Your task to perform on an android device: Go to network settings Image 0: 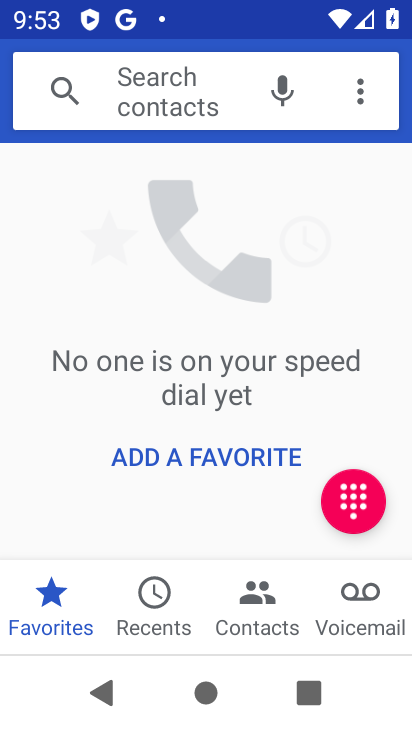
Step 0: press home button
Your task to perform on an android device: Go to network settings Image 1: 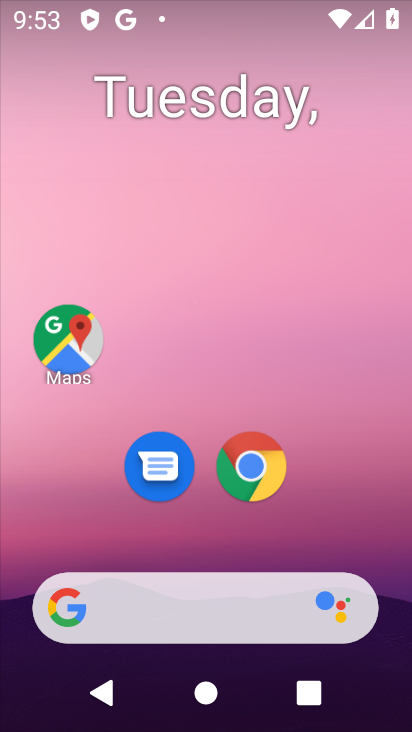
Step 1: drag from (340, 446) to (318, 20)
Your task to perform on an android device: Go to network settings Image 2: 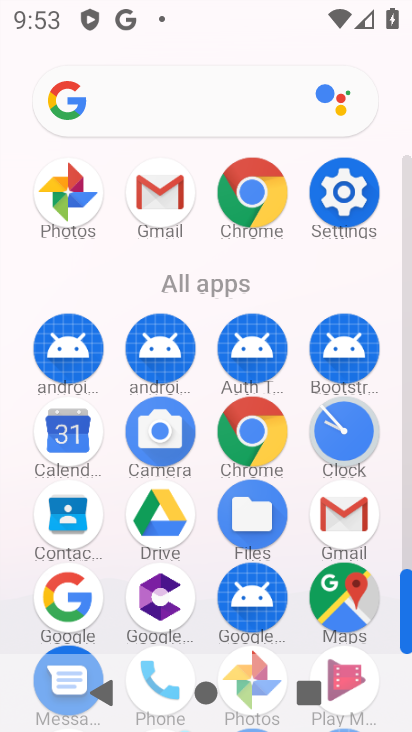
Step 2: click (340, 193)
Your task to perform on an android device: Go to network settings Image 3: 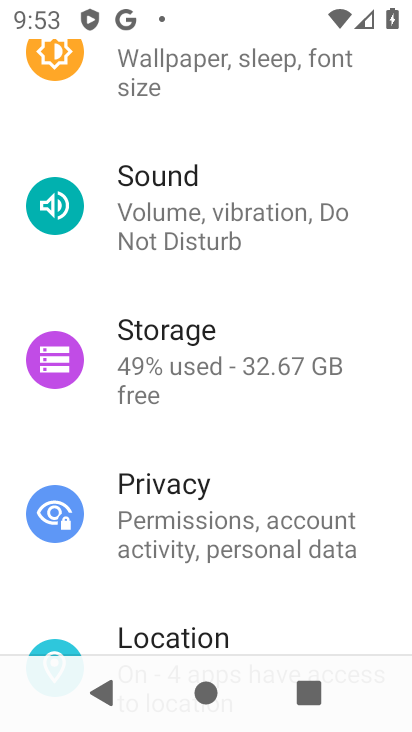
Step 3: drag from (273, 130) to (334, 648)
Your task to perform on an android device: Go to network settings Image 4: 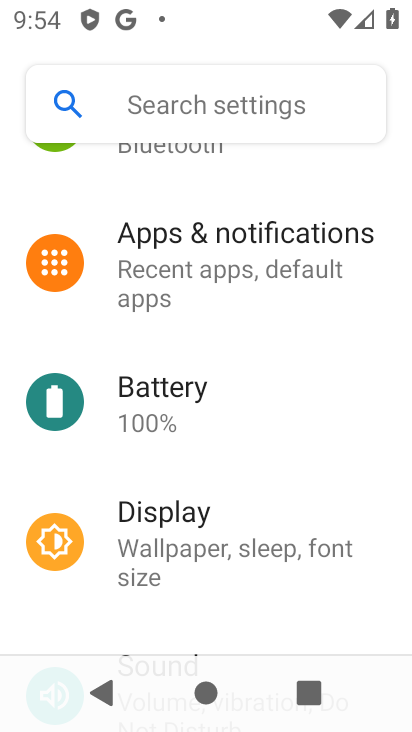
Step 4: drag from (255, 218) to (250, 565)
Your task to perform on an android device: Go to network settings Image 5: 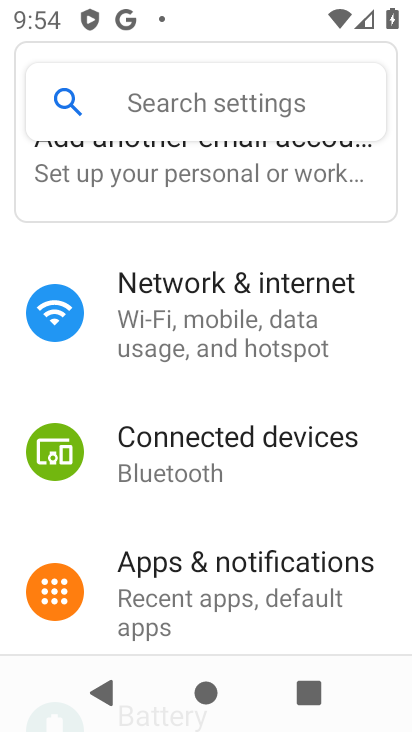
Step 5: click (216, 334)
Your task to perform on an android device: Go to network settings Image 6: 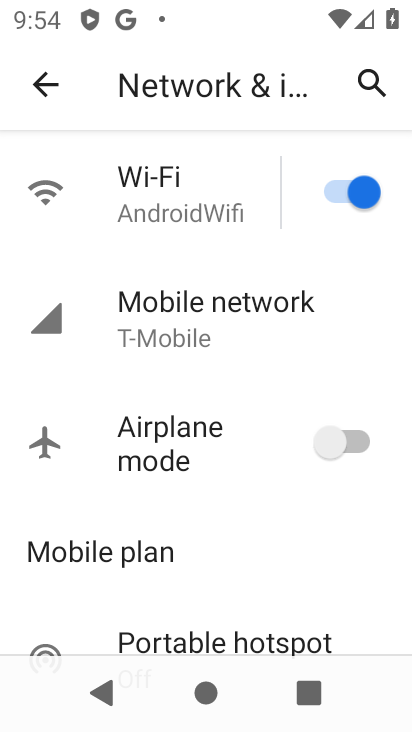
Step 6: drag from (180, 540) to (244, 71)
Your task to perform on an android device: Go to network settings Image 7: 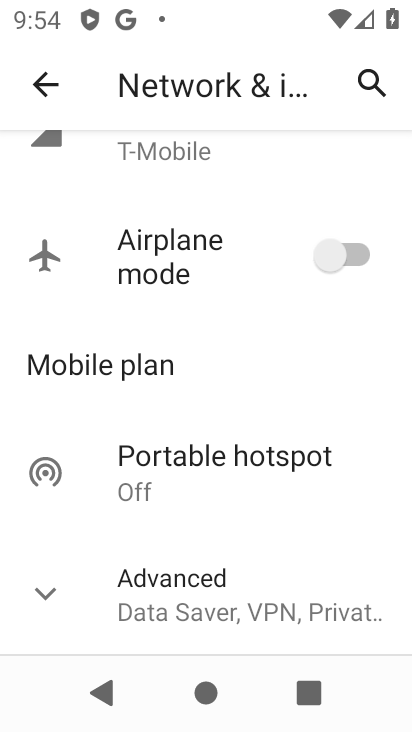
Step 7: click (190, 597)
Your task to perform on an android device: Go to network settings Image 8: 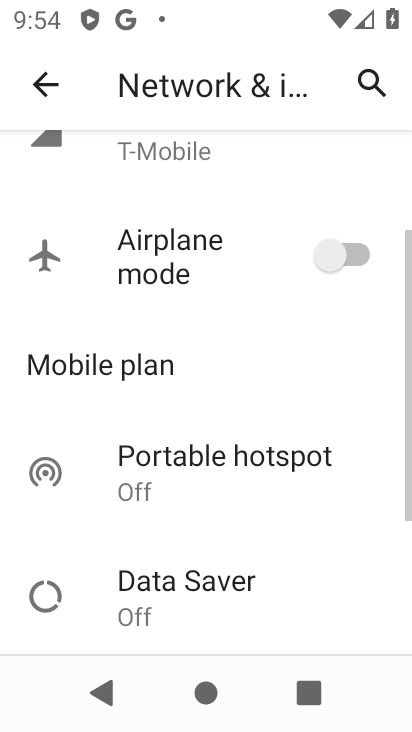
Step 8: task complete